Your task to perform on an android device: Open CNN.com Image 0: 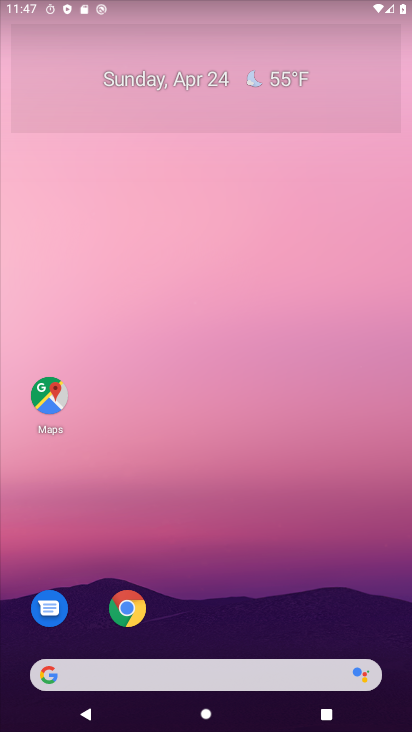
Step 0: click (131, 606)
Your task to perform on an android device: Open CNN.com Image 1: 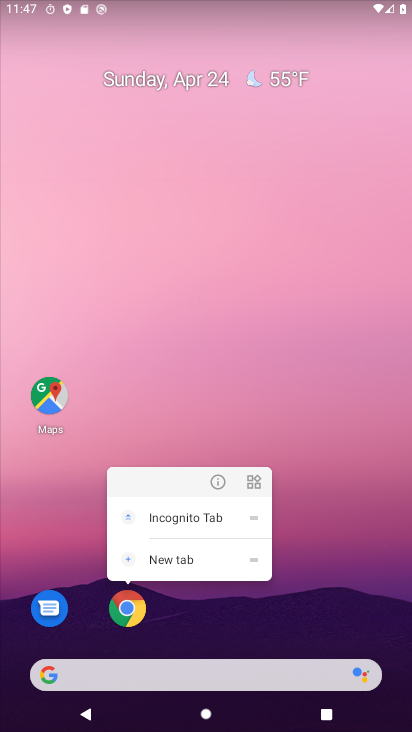
Step 1: click (129, 608)
Your task to perform on an android device: Open CNN.com Image 2: 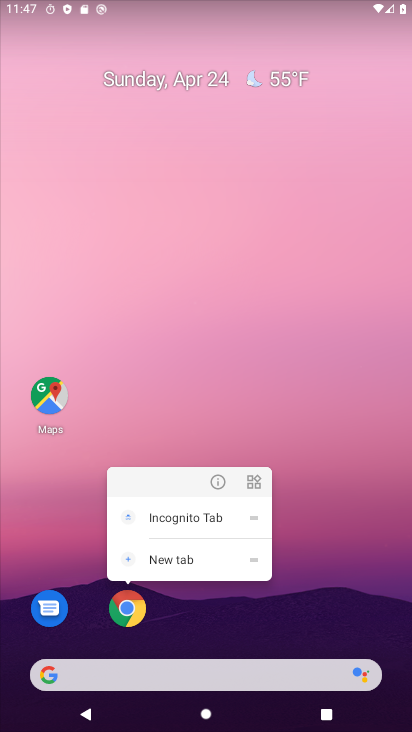
Step 2: click (129, 608)
Your task to perform on an android device: Open CNN.com Image 3: 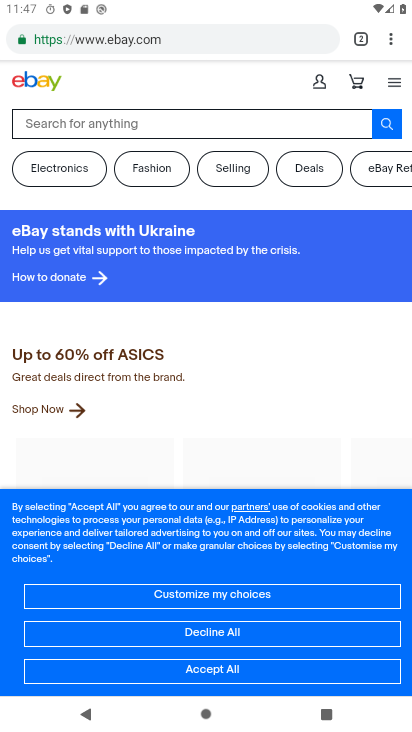
Step 3: click (362, 41)
Your task to perform on an android device: Open CNN.com Image 4: 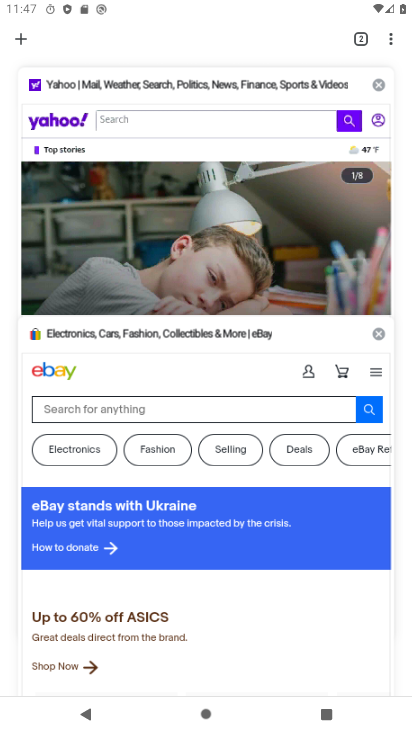
Step 4: click (26, 34)
Your task to perform on an android device: Open CNN.com Image 5: 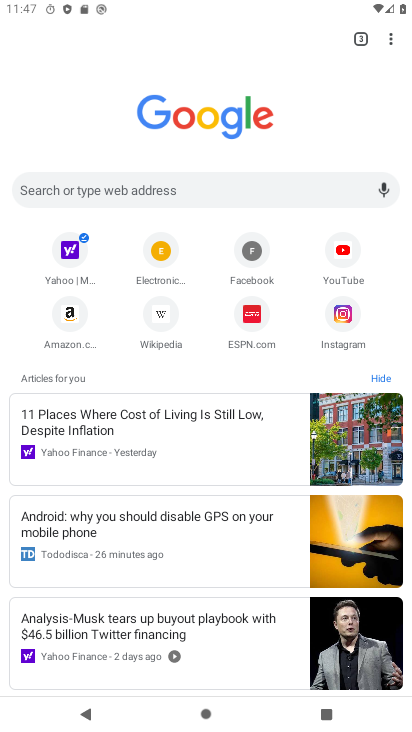
Step 5: click (147, 192)
Your task to perform on an android device: Open CNN.com Image 6: 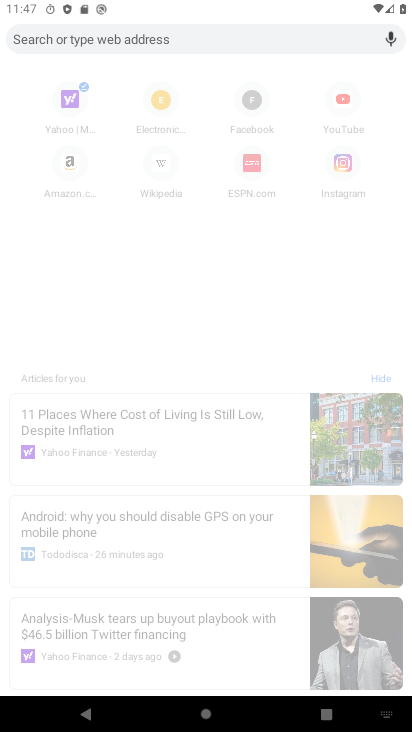
Step 6: type "cnn.com"
Your task to perform on an android device: Open CNN.com Image 7: 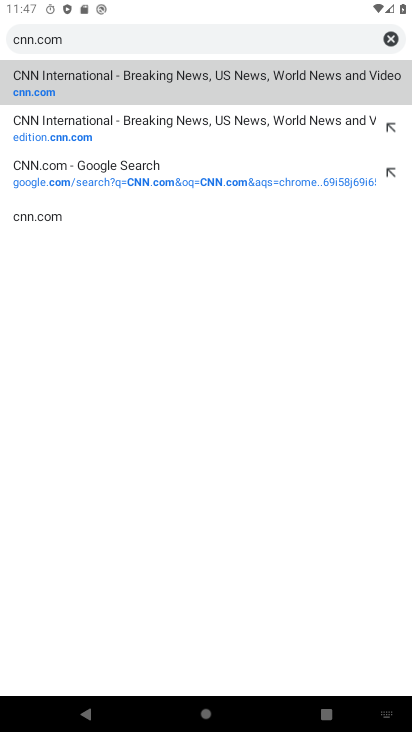
Step 7: click (149, 89)
Your task to perform on an android device: Open CNN.com Image 8: 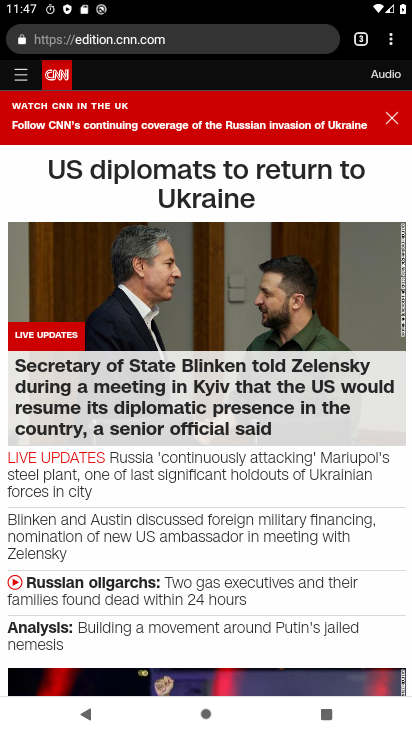
Step 8: task complete